Your task to perform on an android device: Open maps Image 0: 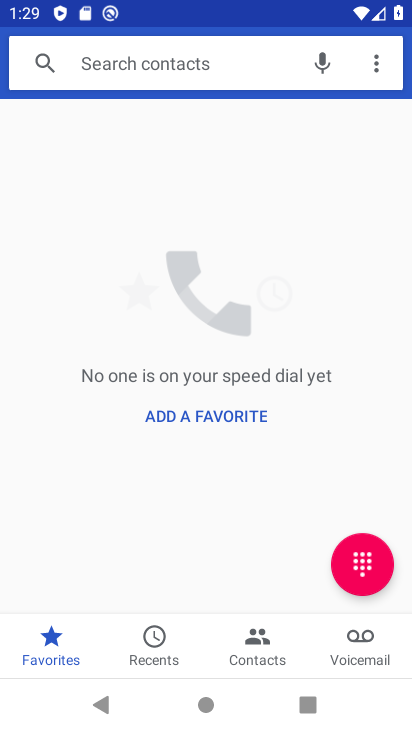
Step 0: press home button
Your task to perform on an android device: Open maps Image 1: 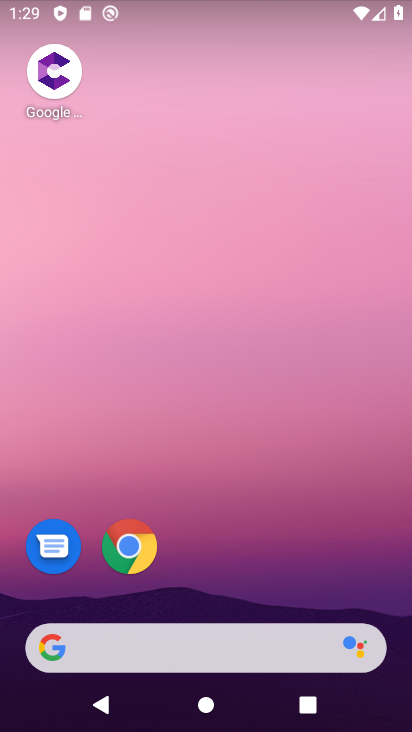
Step 1: drag from (173, 596) to (267, 135)
Your task to perform on an android device: Open maps Image 2: 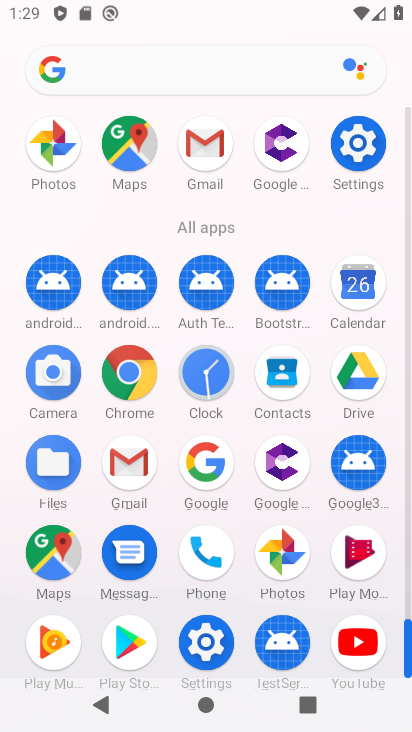
Step 2: click (68, 566)
Your task to perform on an android device: Open maps Image 3: 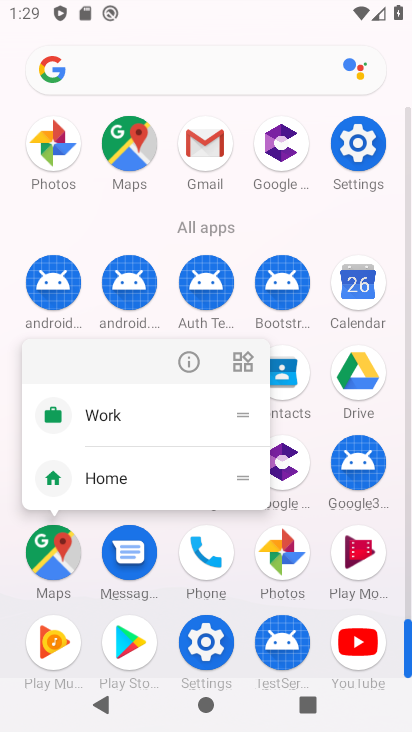
Step 3: click (45, 548)
Your task to perform on an android device: Open maps Image 4: 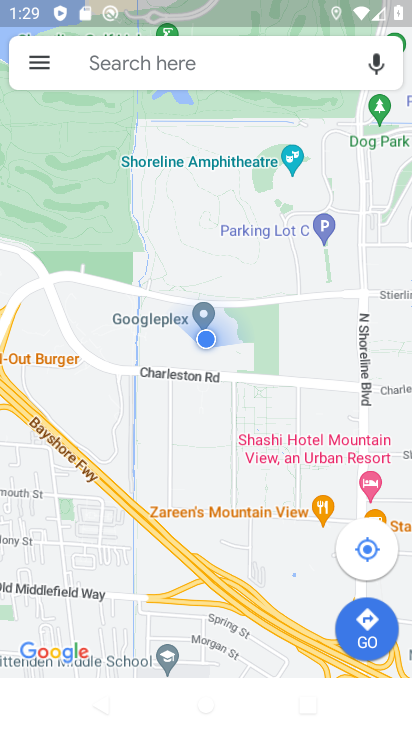
Step 4: task complete